Your task to perform on an android device: Open calendar and show me the fourth week of next month Image 0: 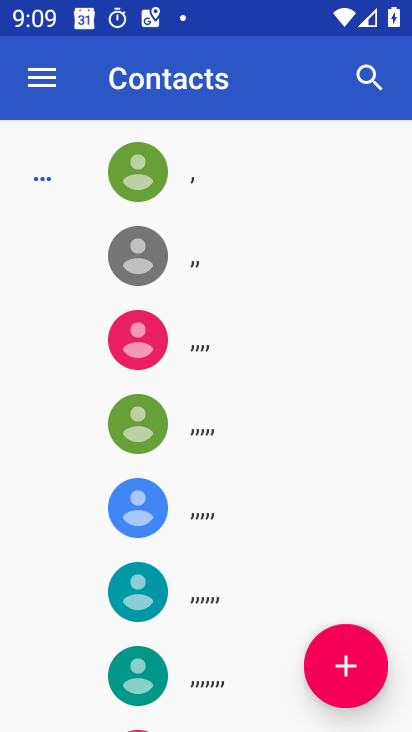
Step 0: press back button
Your task to perform on an android device: Open calendar and show me the fourth week of next month Image 1: 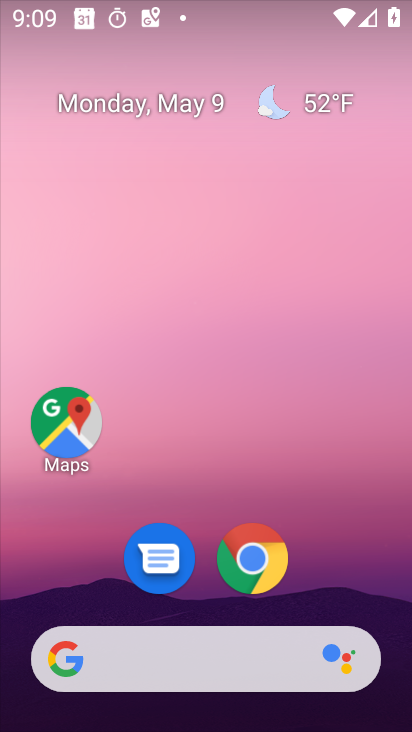
Step 1: drag from (224, 581) to (299, 56)
Your task to perform on an android device: Open calendar and show me the fourth week of next month Image 2: 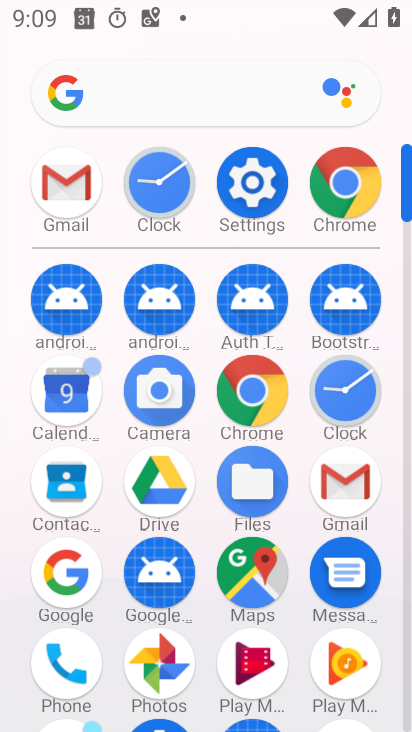
Step 2: click (77, 399)
Your task to perform on an android device: Open calendar and show me the fourth week of next month Image 3: 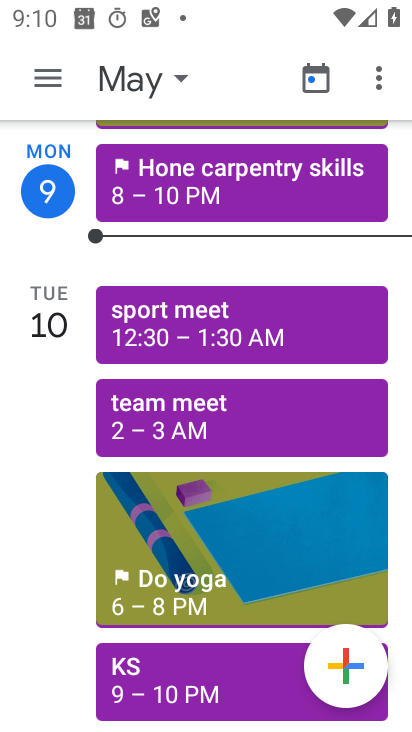
Step 3: click (180, 69)
Your task to perform on an android device: Open calendar and show me the fourth week of next month Image 4: 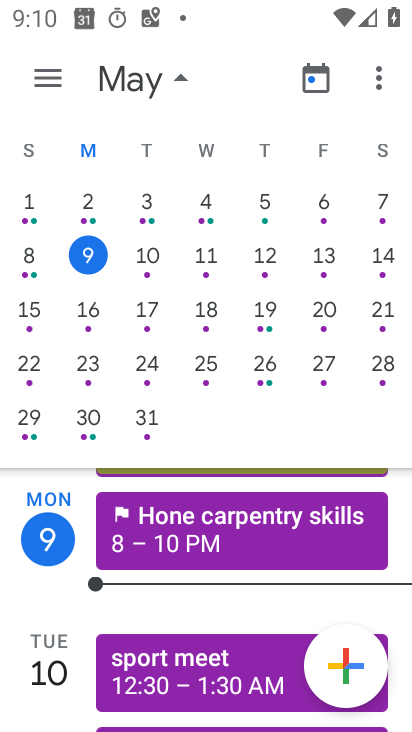
Step 4: drag from (350, 273) to (33, 300)
Your task to perform on an android device: Open calendar and show me the fourth week of next month Image 5: 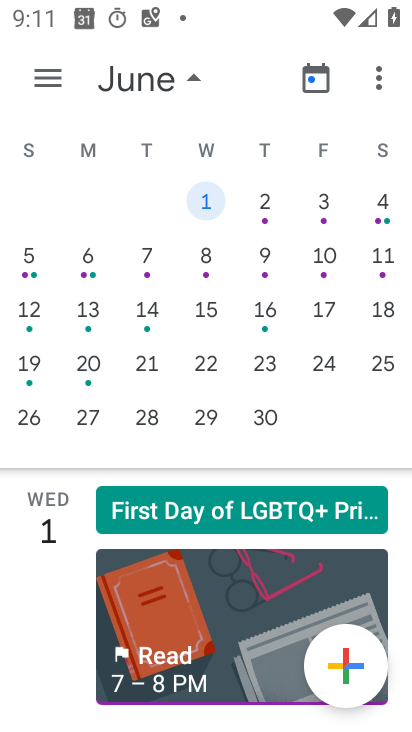
Step 5: click (88, 364)
Your task to perform on an android device: Open calendar and show me the fourth week of next month Image 6: 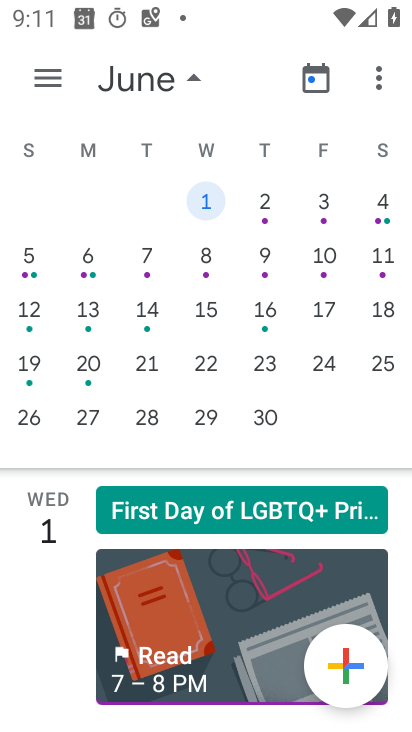
Step 6: click (90, 365)
Your task to perform on an android device: Open calendar and show me the fourth week of next month Image 7: 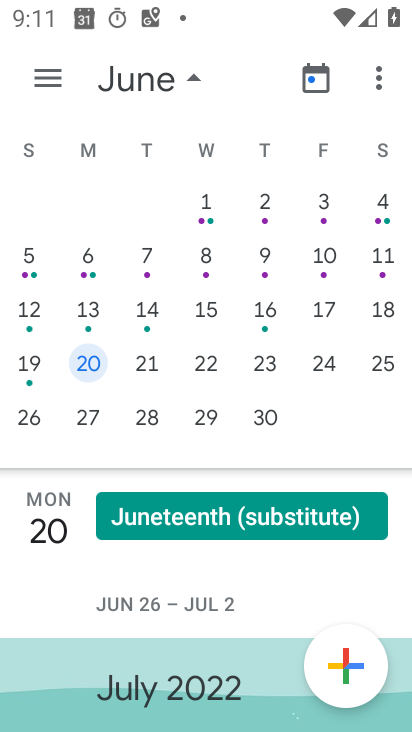
Step 7: task complete